Your task to perform on an android device: check storage Image 0: 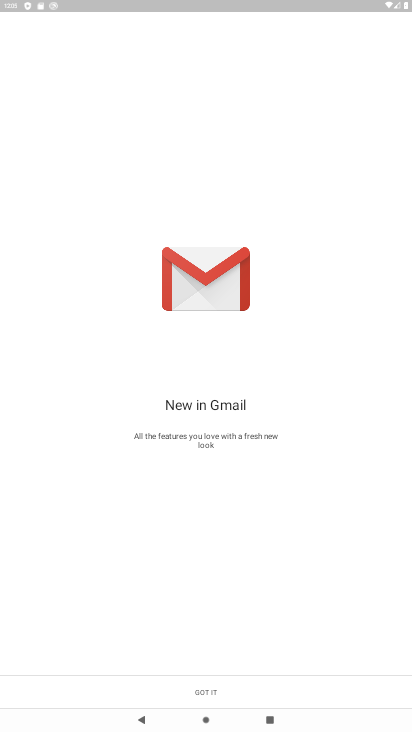
Step 0: press home button
Your task to perform on an android device: check storage Image 1: 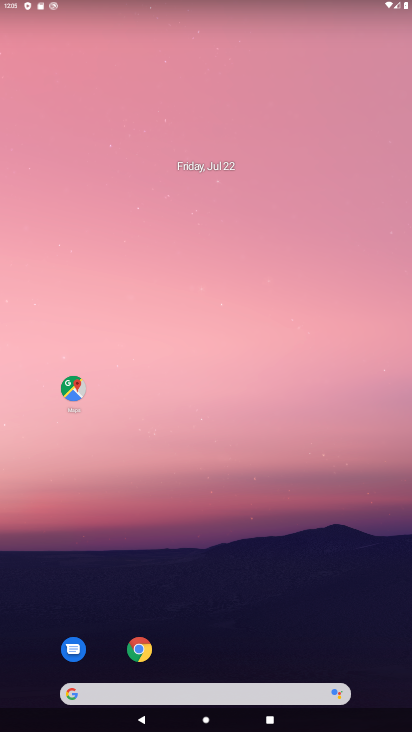
Step 1: drag from (259, 612) to (267, 444)
Your task to perform on an android device: check storage Image 2: 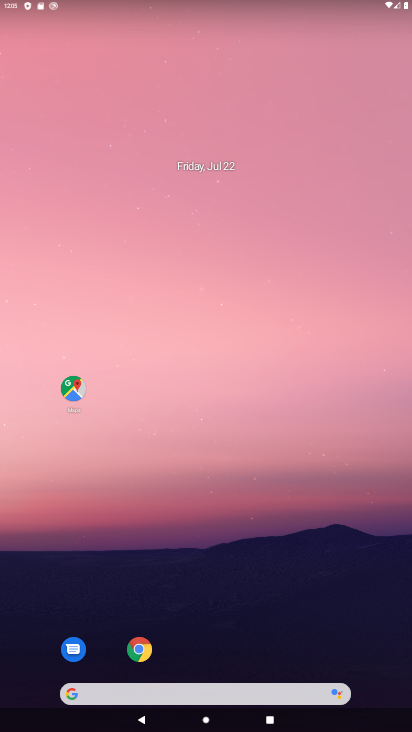
Step 2: drag from (267, 590) to (338, 47)
Your task to perform on an android device: check storage Image 3: 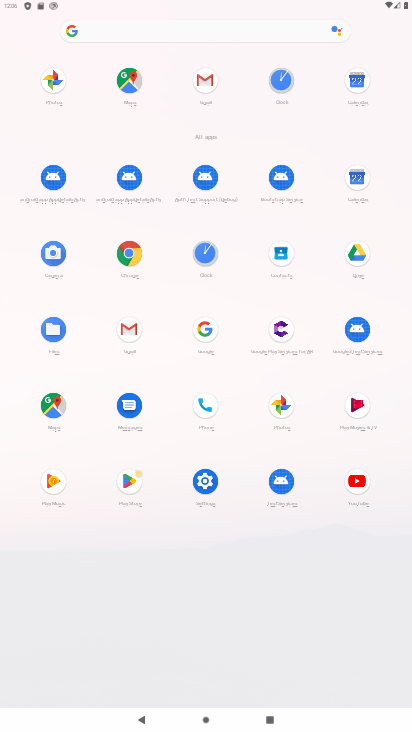
Step 3: click (213, 471)
Your task to perform on an android device: check storage Image 4: 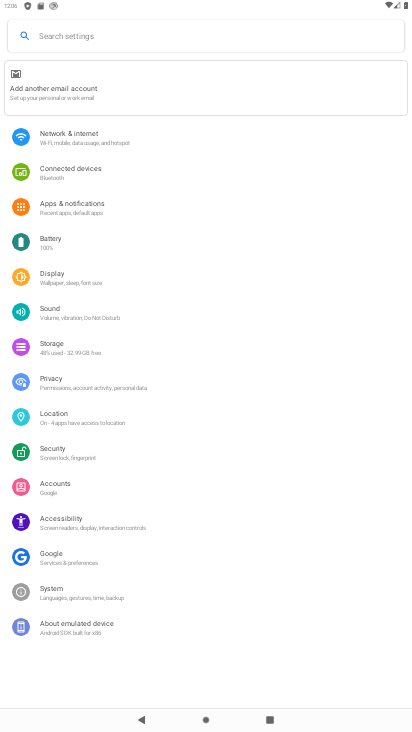
Step 4: click (50, 349)
Your task to perform on an android device: check storage Image 5: 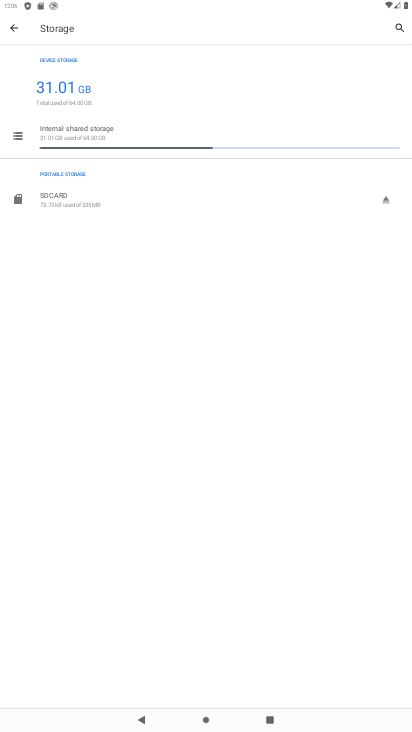
Step 5: task complete